Your task to perform on an android device: toggle wifi Image 0: 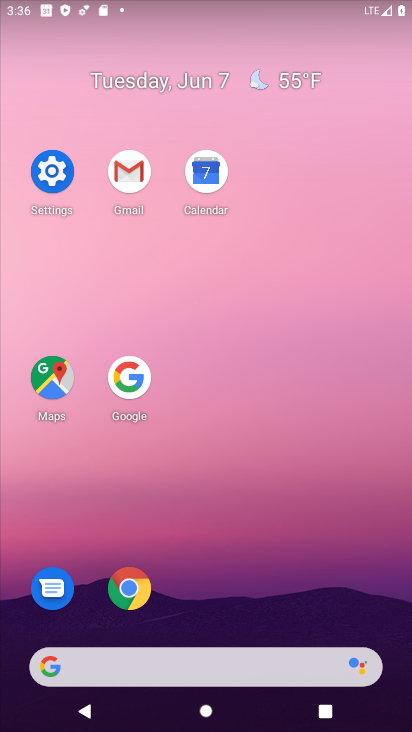
Step 0: click (71, 160)
Your task to perform on an android device: toggle wifi Image 1: 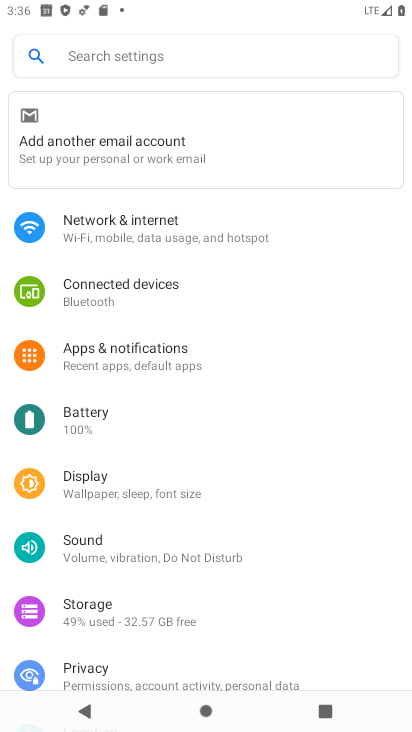
Step 1: click (191, 221)
Your task to perform on an android device: toggle wifi Image 2: 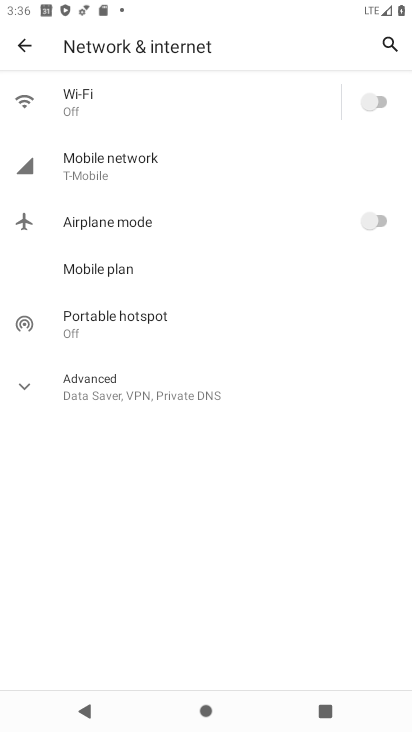
Step 2: click (383, 94)
Your task to perform on an android device: toggle wifi Image 3: 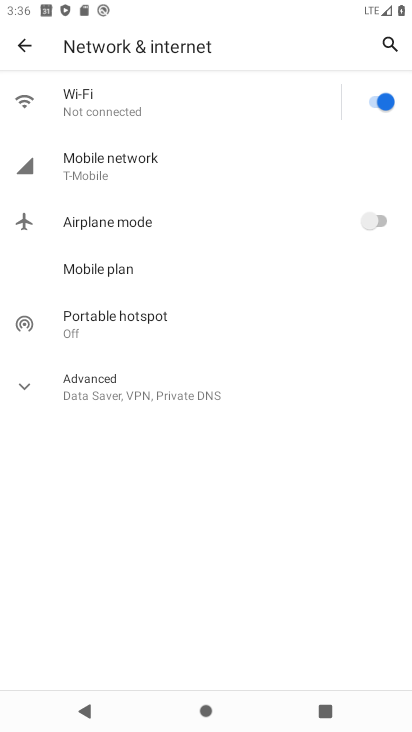
Step 3: task complete